Your task to perform on an android device: Search for seafood restaurants on Google Maps Image 0: 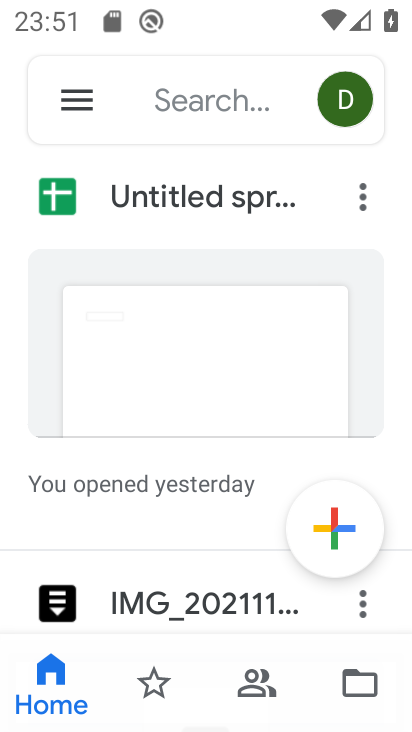
Step 0: press home button
Your task to perform on an android device: Search for seafood restaurants on Google Maps Image 1: 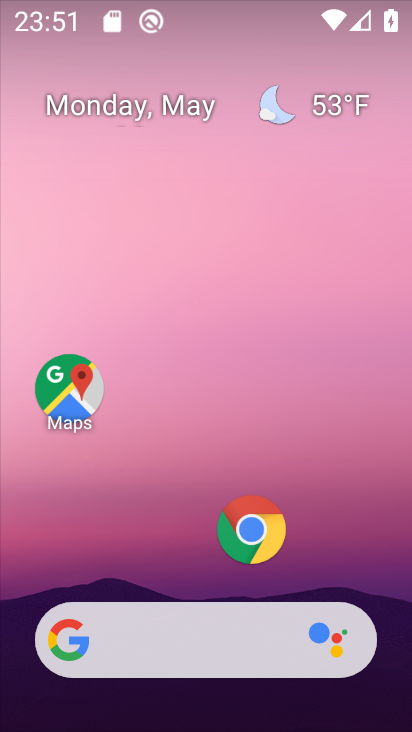
Step 1: click (64, 371)
Your task to perform on an android device: Search for seafood restaurants on Google Maps Image 2: 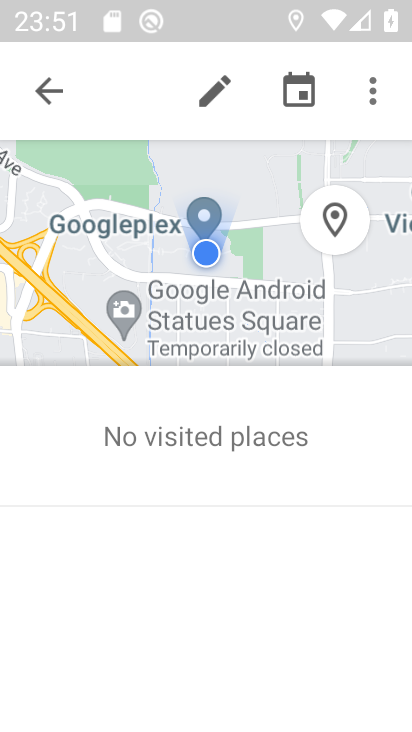
Step 2: click (41, 91)
Your task to perform on an android device: Search for seafood restaurants on Google Maps Image 3: 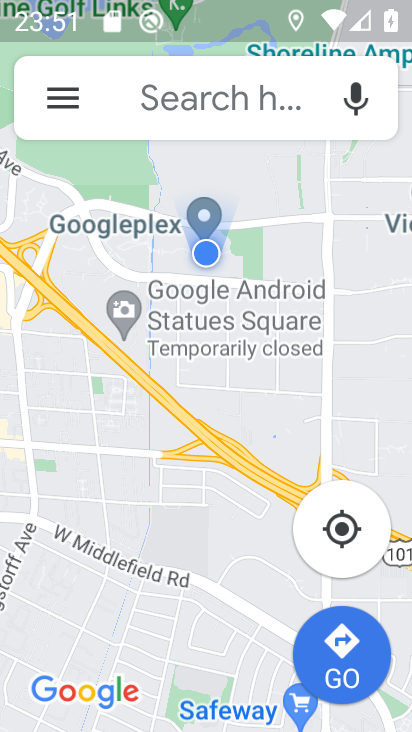
Step 3: click (175, 91)
Your task to perform on an android device: Search for seafood restaurants on Google Maps Image 4: 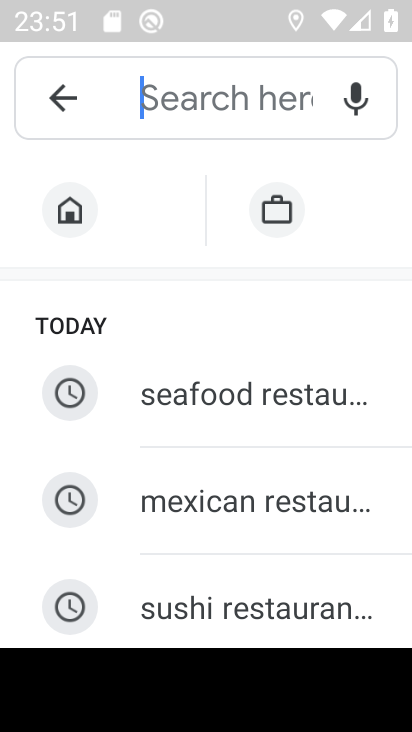
Step 4: click (284, 397)
Your task to perform on an android device: Search for seafood restaurants on Google Maps Image 5: 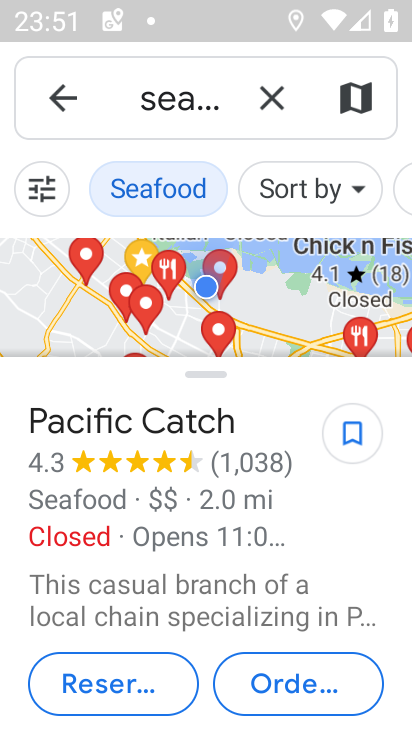
Step 5: task complete